Your task to perform on an android device: add a contact Image 0: 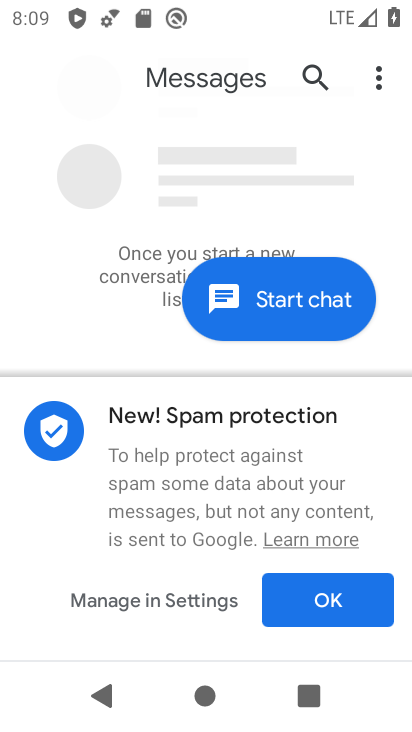
Step 0: press home button
Your task to perform on an android device: add a contact Image 1: 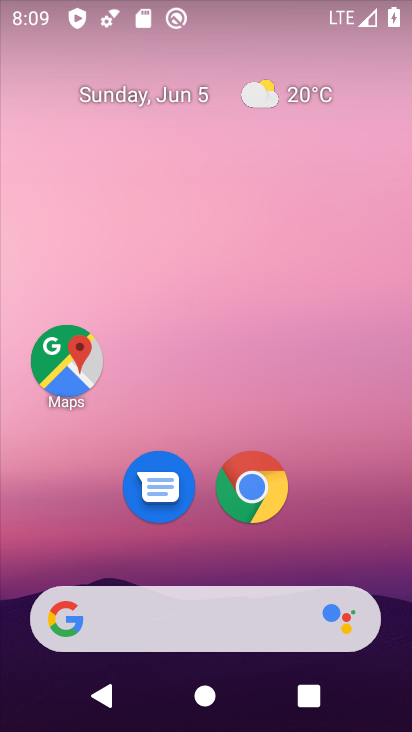
Step 1: drag from (172, 566) to (204, 148)
Your task to perform on an android device: add a contact Image 2: 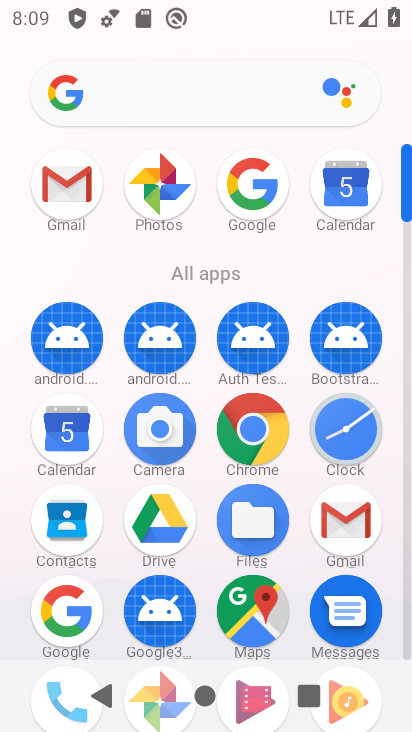
Step 2: click (82, 523)
Your task to perform on an android device: add a contact Image 3: 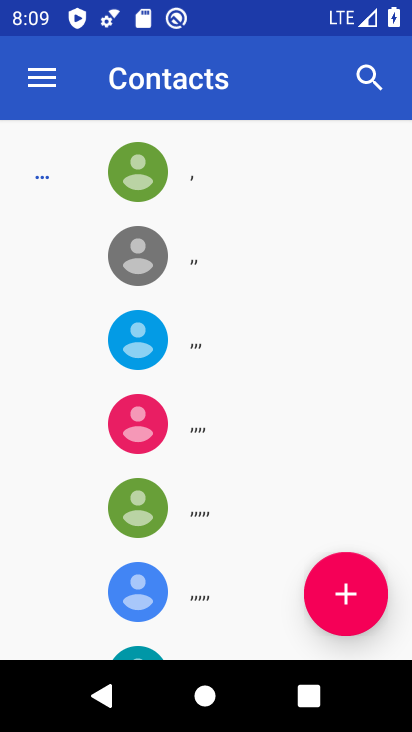
Step 3: click (334, 598)
Your task to perform on an android device: add a contact Image 4: 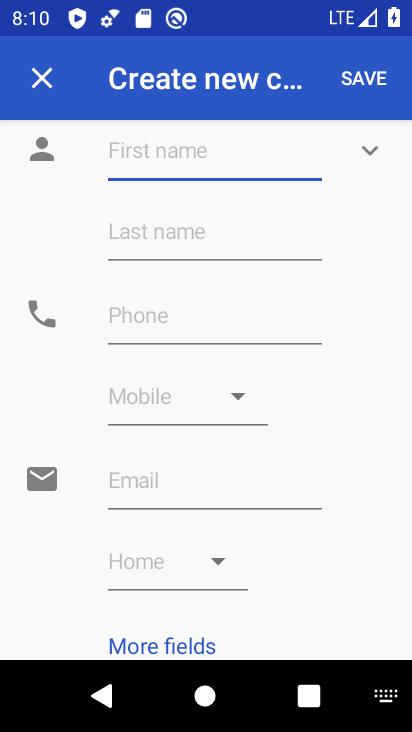
Step 4: type "gdfsgdsfg"
Your task to perform on an android device: add a contact Image 5: 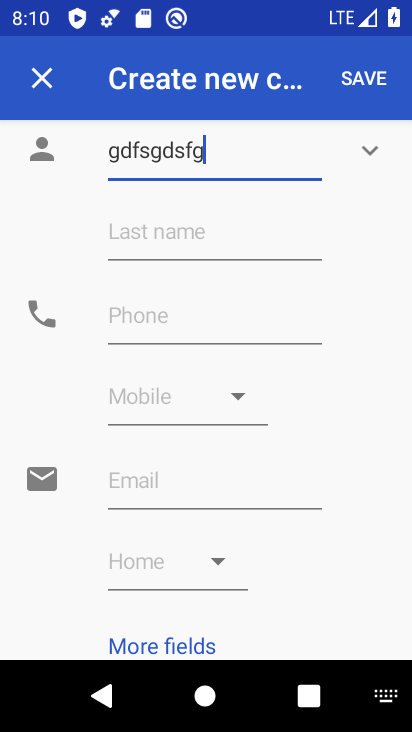
Step 5: click (95, 313)
Your task to perform on an android device: add a contact Image 6: 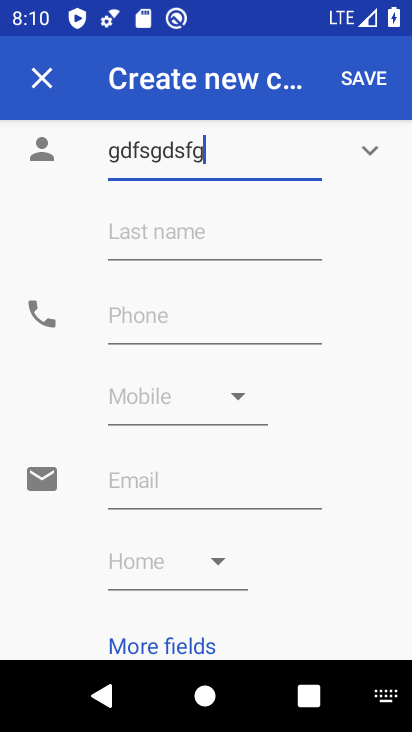
Step 6: click (255, 318)
Your task to perform on an android device: add a contact Image 7: 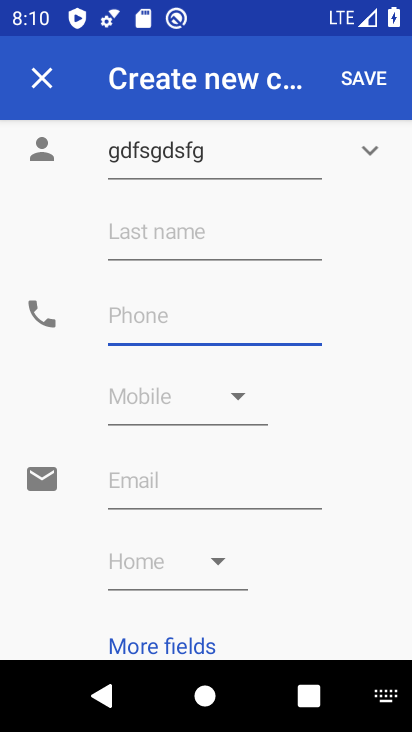
Step 7: type "97696785675"
Your task to perform on an android device: add a contact Image 8: 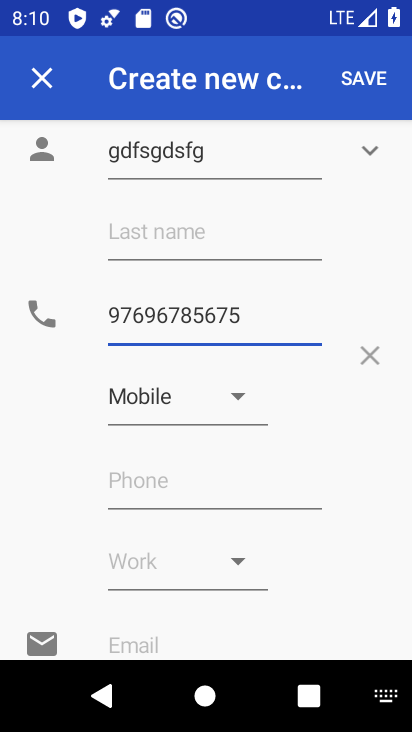
Step 8: click (369, 81)
Your task to perform on an android device: add a contact Image 9: 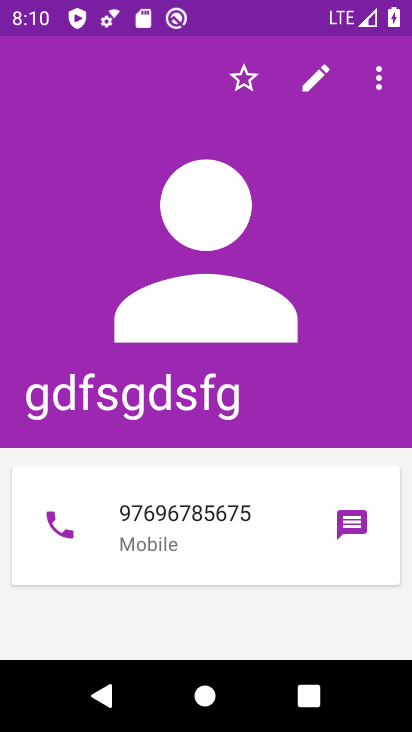
Step 9: task complete